Your task to perform on an android device: change notifications settings Image 0: 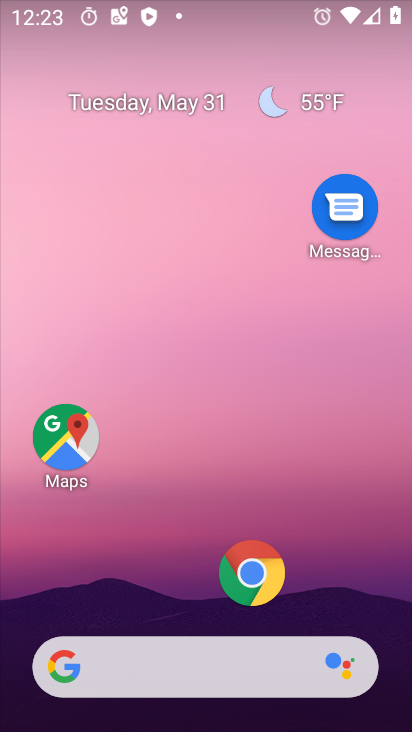
Step 0: drag from (317, 599) to (327, 86)
Your task to perform on an android device: change notifications settings Image 1: 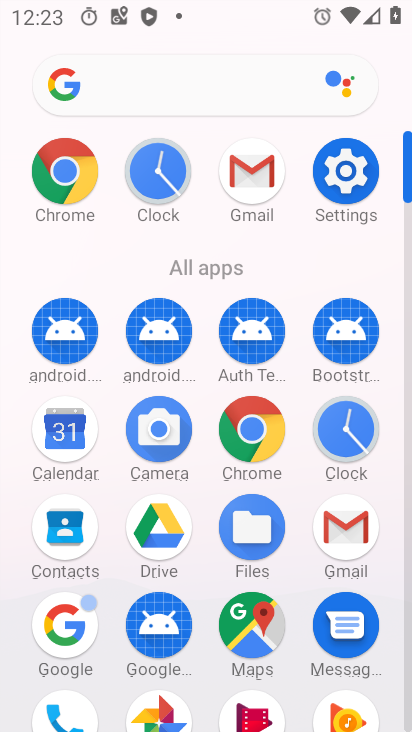
Step 1: click (349, 175)
Your task to perform on an android device: change notifications settings Image 2: 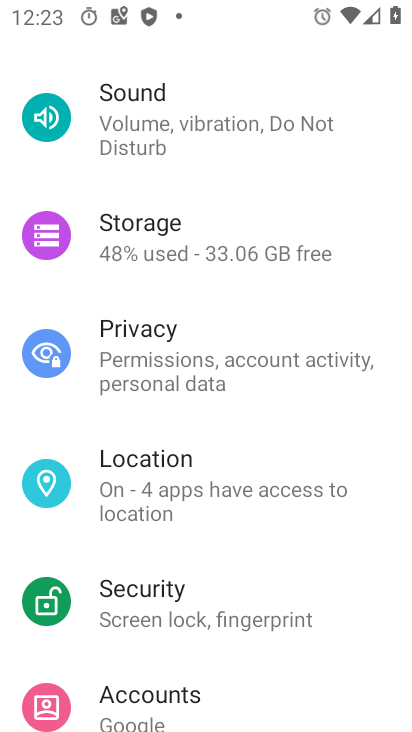
Step 2: drag from (151, 280) to (182, 525)
Your task to perform on an android device: change notifications settings Image 3: 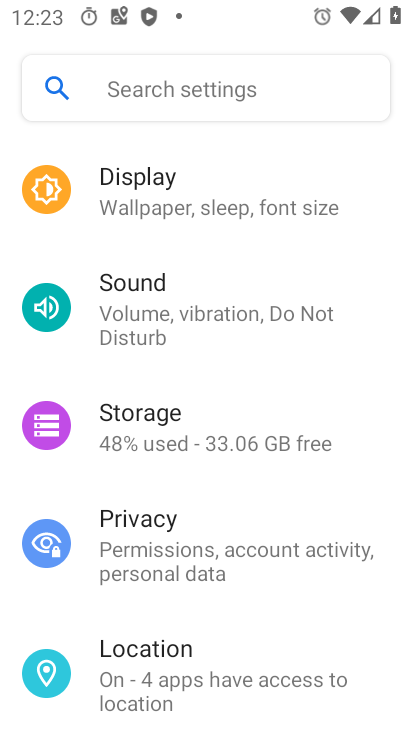
Step 3: drag from (240, 257) to (269, 529)
Your task to perform on an android device: change notifications settings Image 4: 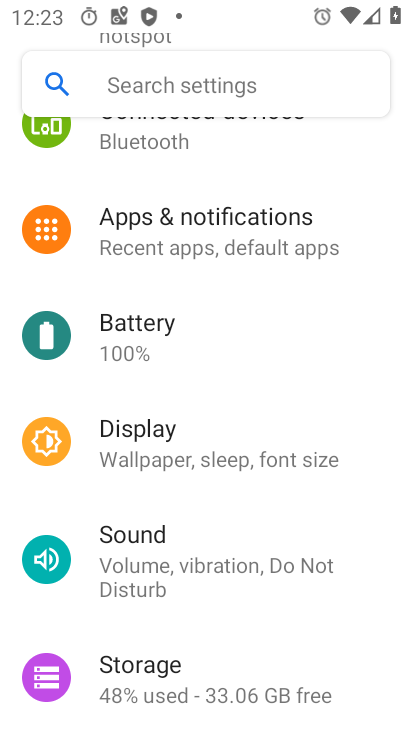
Step 4: click (230, 248)
Your task to perform on an android device: change notifications settings Image 5: 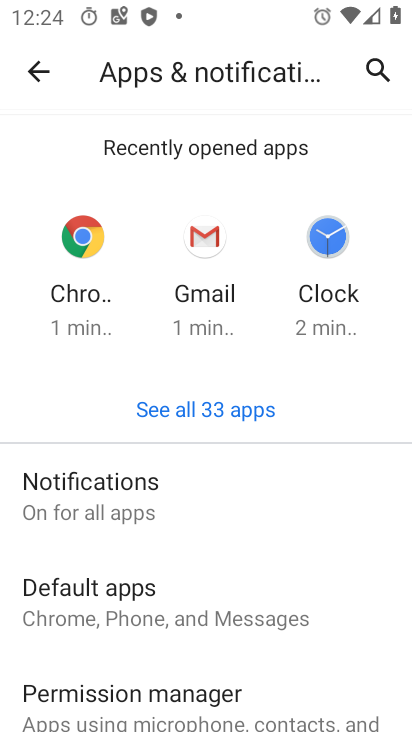
Step 5: click (162, 499)
Your task to perform on an android device: change notifications settings Image 6: 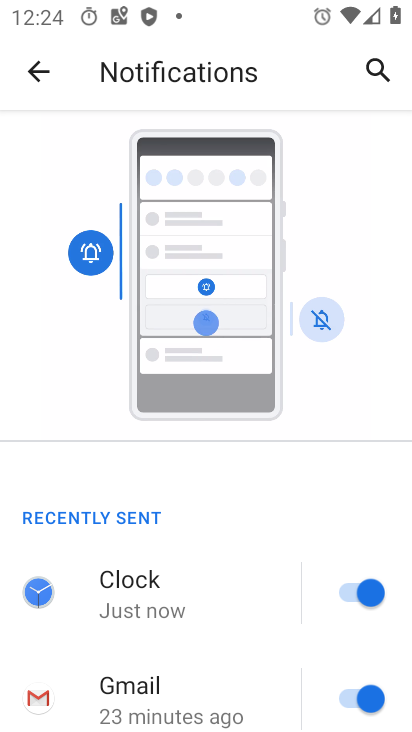
Step 6: task complete